Your task to perform on an android device: open sync settings in chrome Image 0: 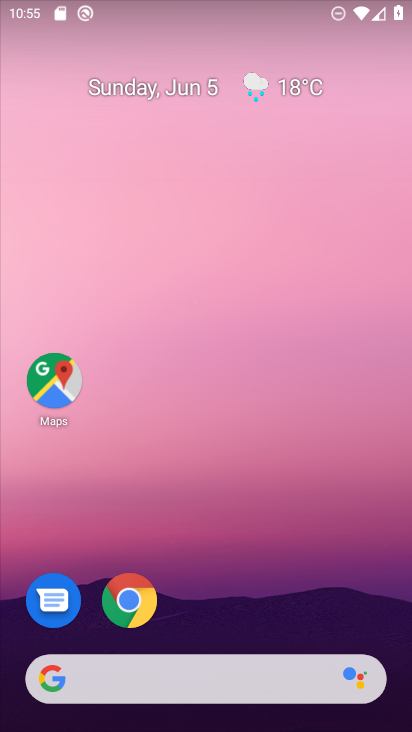
Step 0: click (143, 626)
Your task to perform on an android device: open sync settings in chrome Image 1: 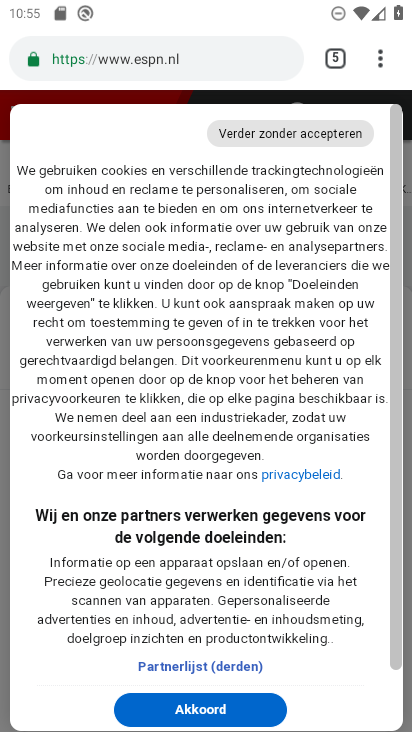
Step 1: click (398, 52)
Your task to perform on an android device: open sync settings in chrome Image 2: 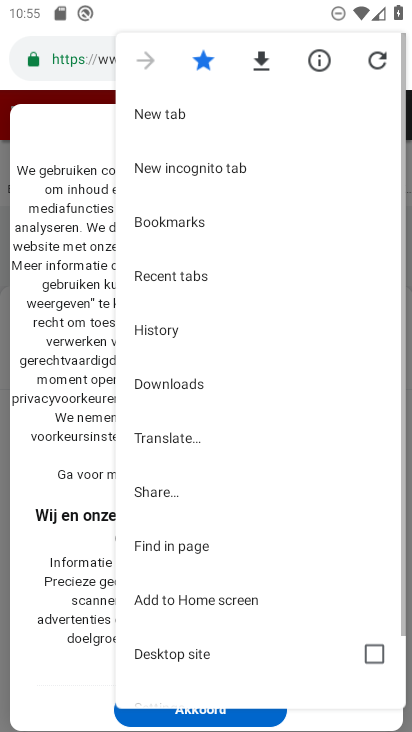
Step 2: drag from (173, 636) to (314, 11)
Your task to perform on an android device: open sync settings in chrome Image 3: 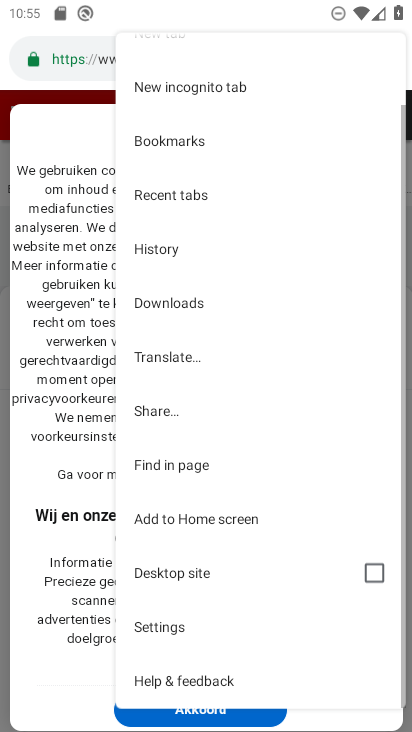
Step 3: click (141, 637)
Your task to perform on an android device: open sync settings in chrome Image 4: 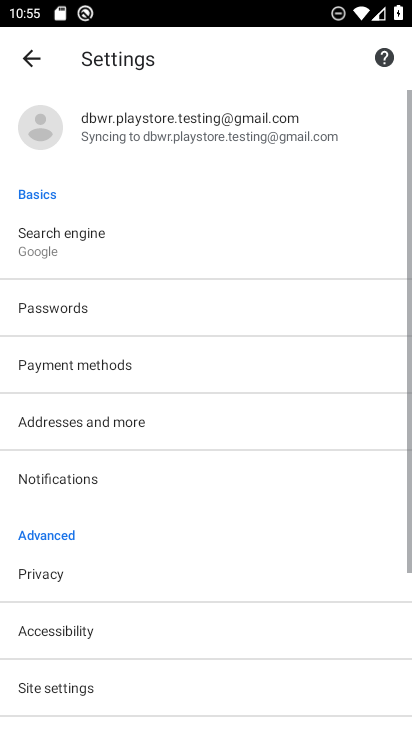
Step 4: click (168, 142)
Your task to perform on an android device: open sync settings in chrome Image 5: 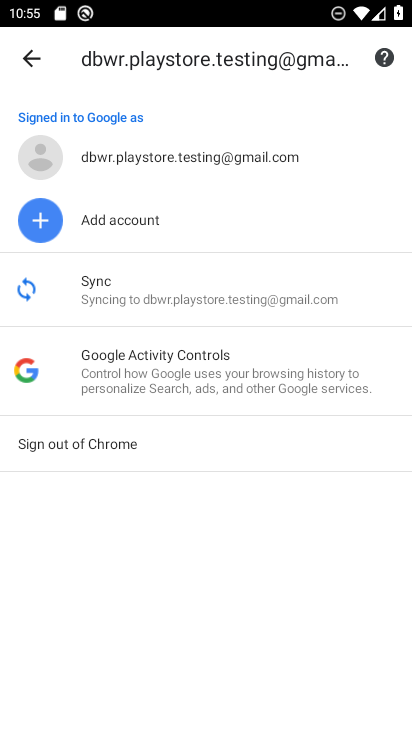
Step 5: task complete